Your task to perform on an android device: View the shopping cart on costco.com. Add "duracell triple a" to the cart on costco.com, then select checkout. Image 0: 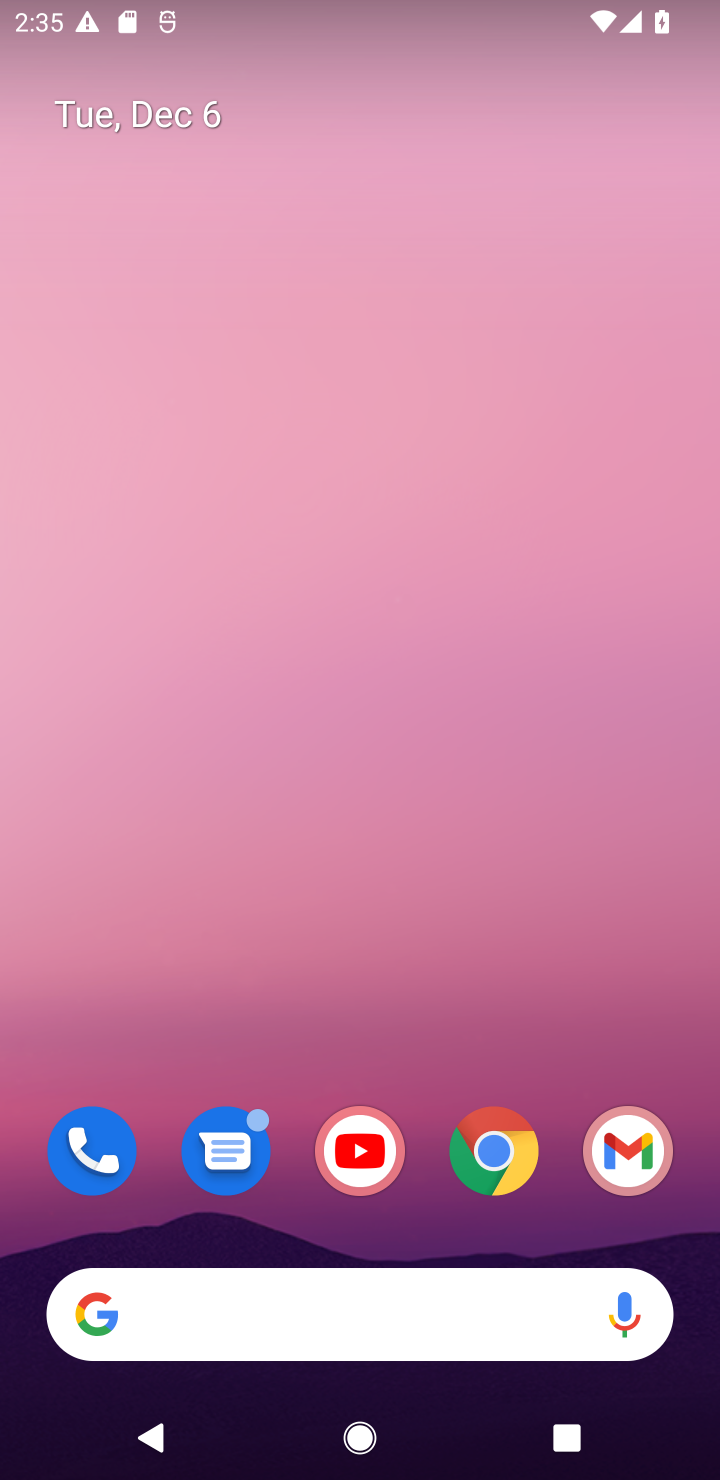
Step 0: click (503, 1161)
Your task to perform on an android device: View the shopping cart on costco.com. Add "duracell triple a" to the cart on costco.com, then select checkout. Image 1: 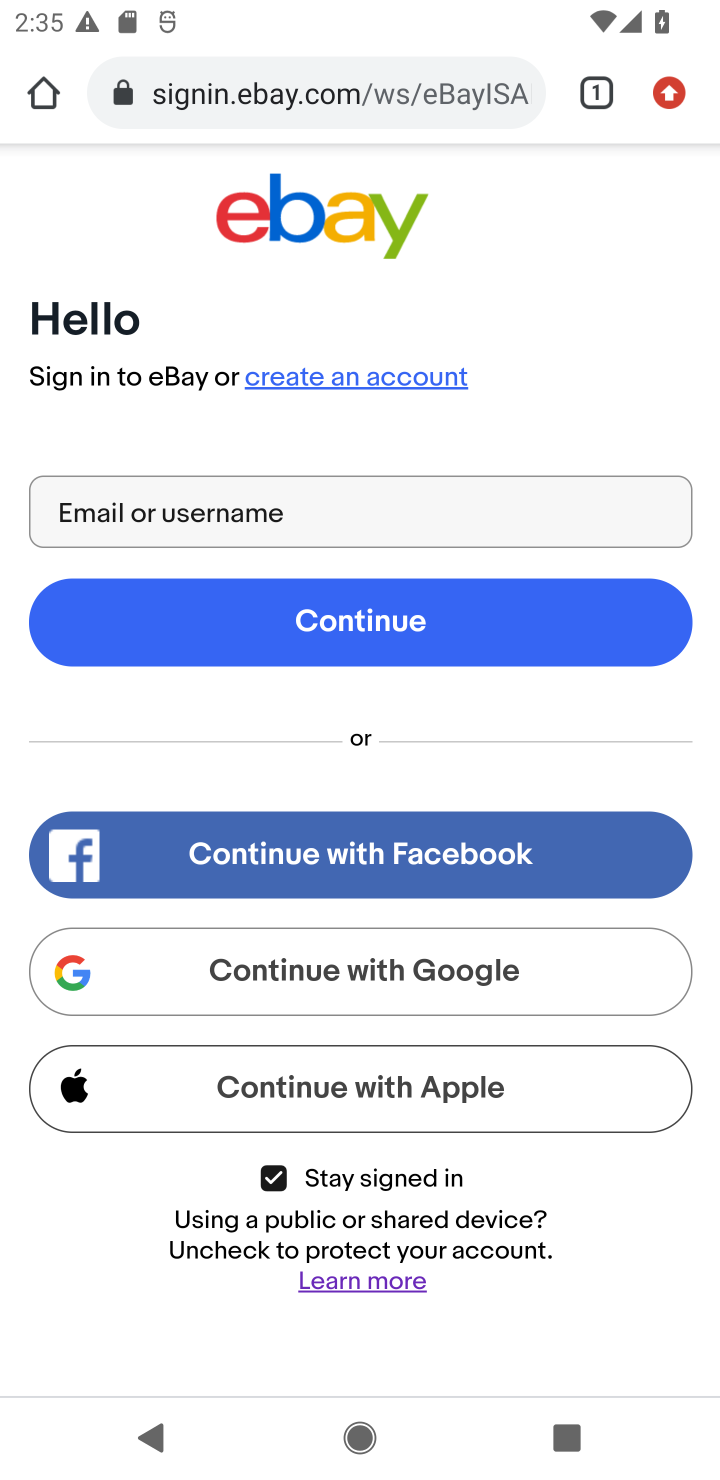
Step 1: click (294, 98)
Your task to perform on an android device: View the shopping cart on costco.com. Add "duracell triple a" to the cart on costco.com, then select checkout. Image 2: 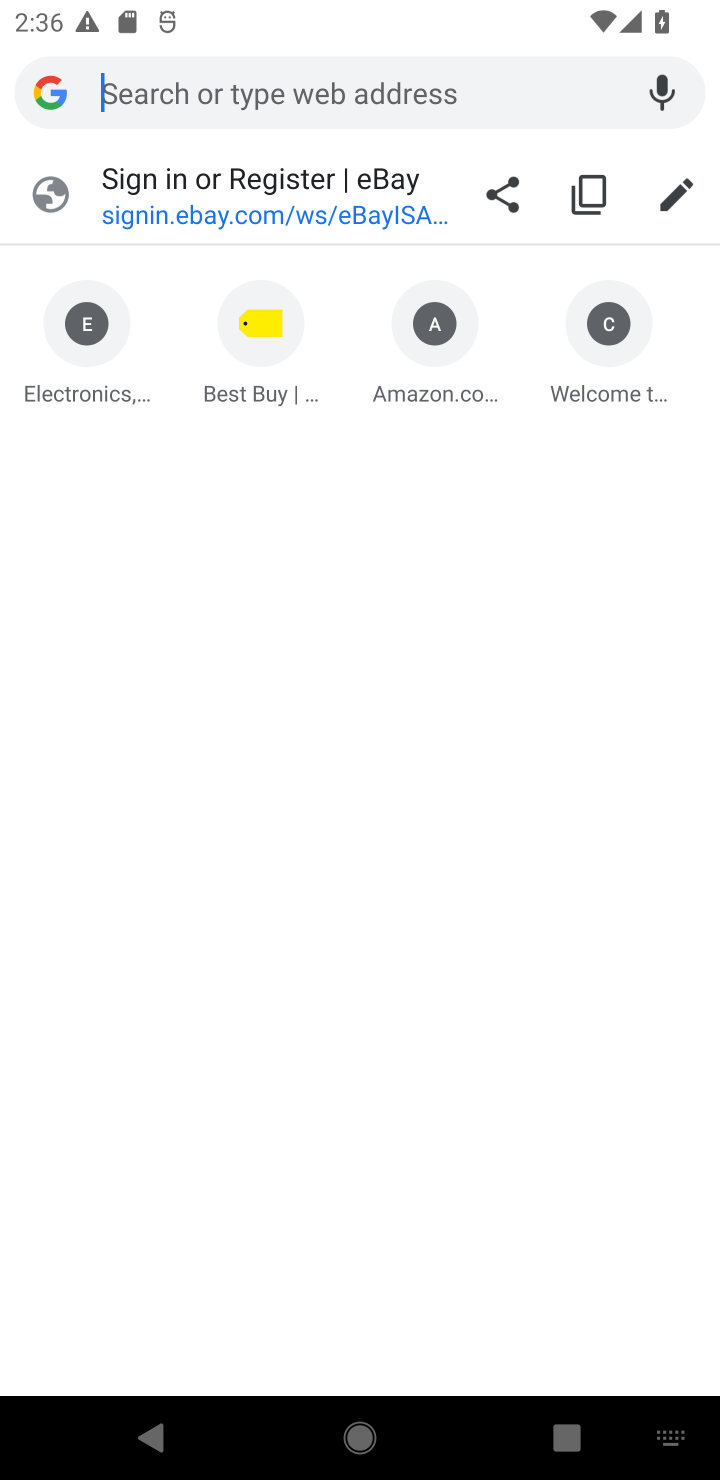
Step 2: type "costco.com"
Your task to perform on an android device: View the shopping cart on costco.com. Add "duracell triple a" to the cart on costco.com, then select checkout. Image 3: 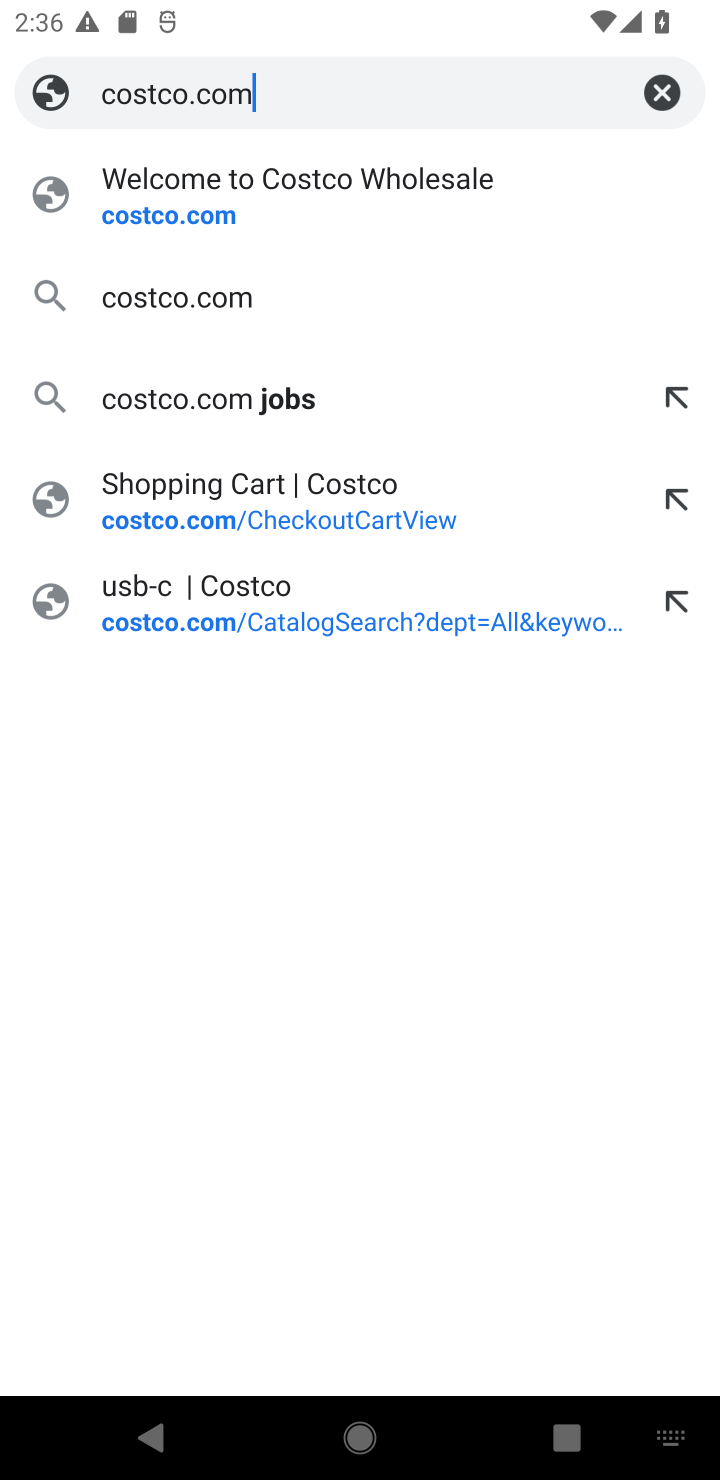
Step 3: click (140, 210)
Your task to perform on an android device: View the shopping cart on costco.com. Add "duracell triple a" to the cart on costco.com, then select checkout. Image 4: 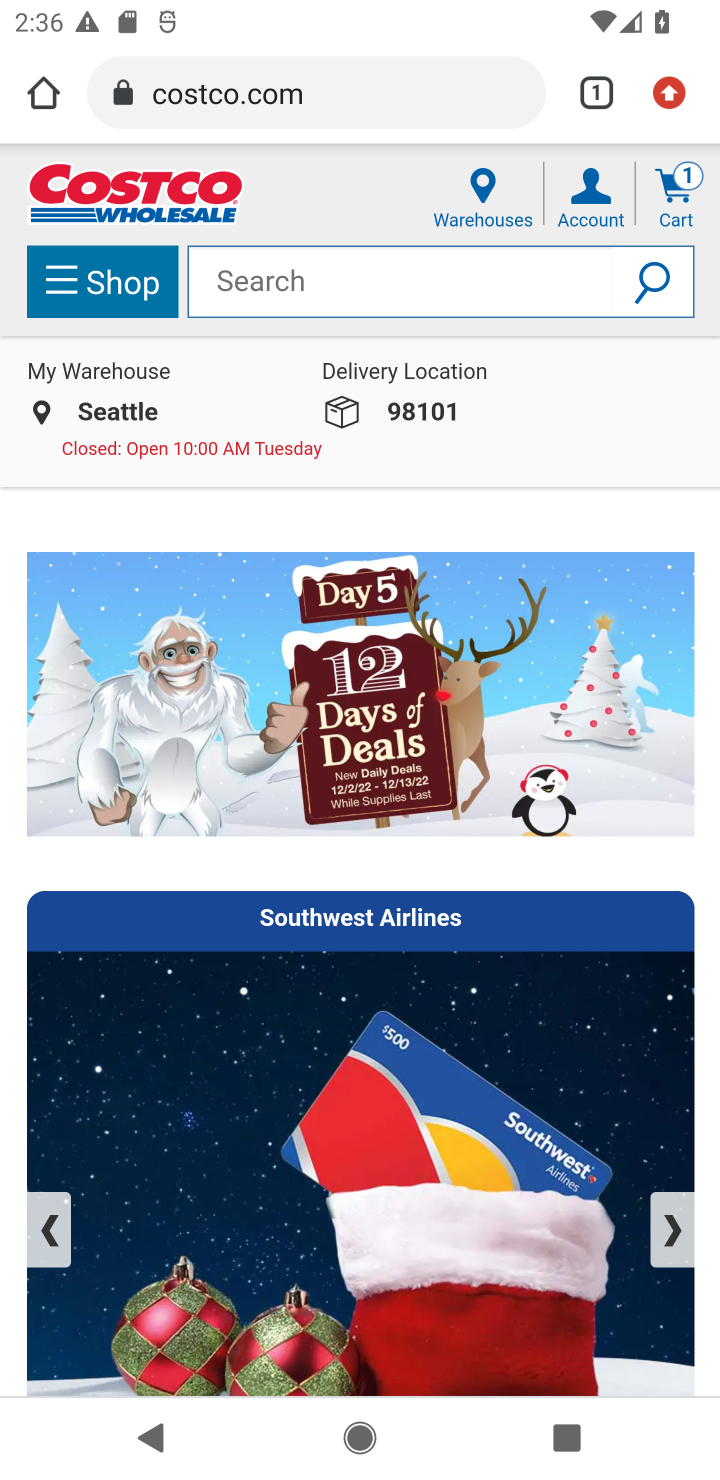
Step 4: click (669, 212)
Your task to perform on an android device: View the shopping cart on costco.com. Add "duracell triple a" to the cart on costco.com, then select checkout. Image 5: 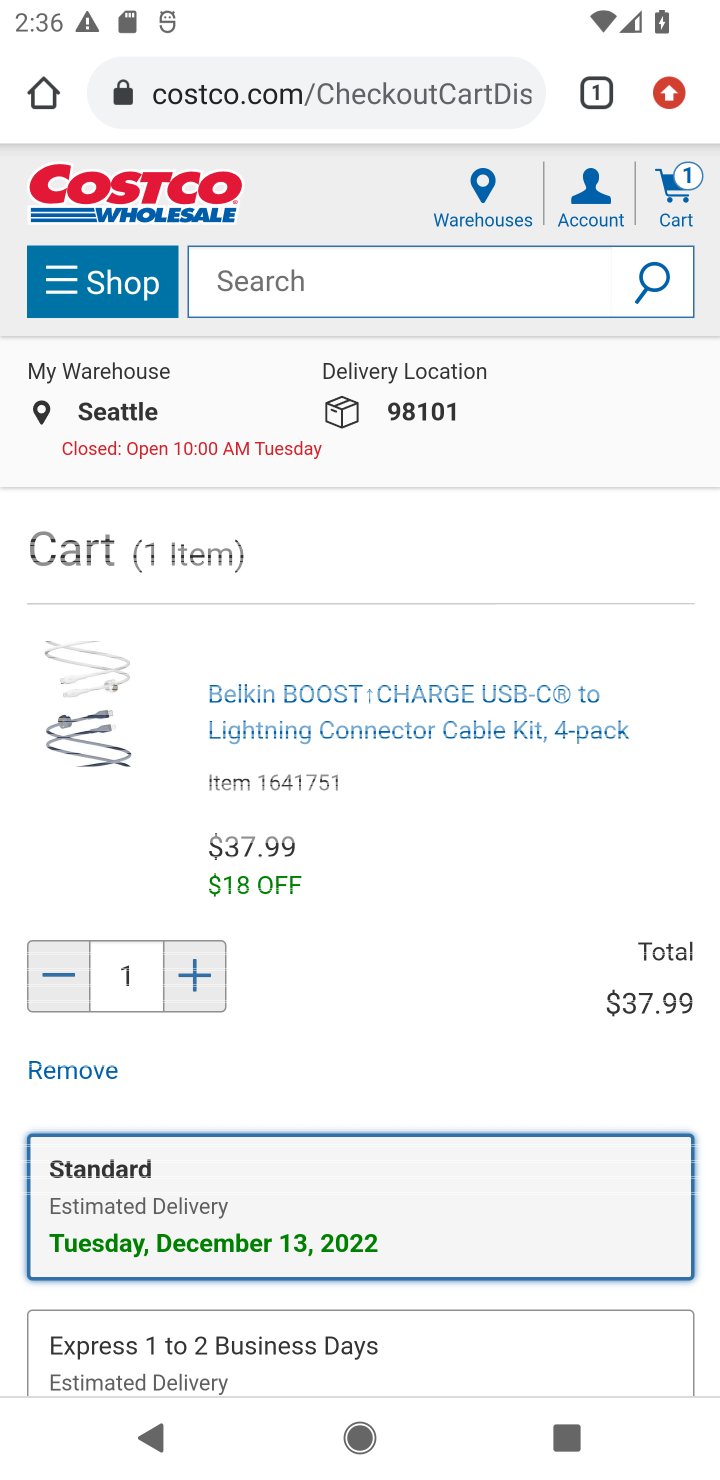
Step 5: drag from (419, 1010) to (413, 496)
Your task to perform on an android device: View the shopping cart on costco.com. Add "duracell triple a" to the cart on costco.com, then select checkout. Image 6: 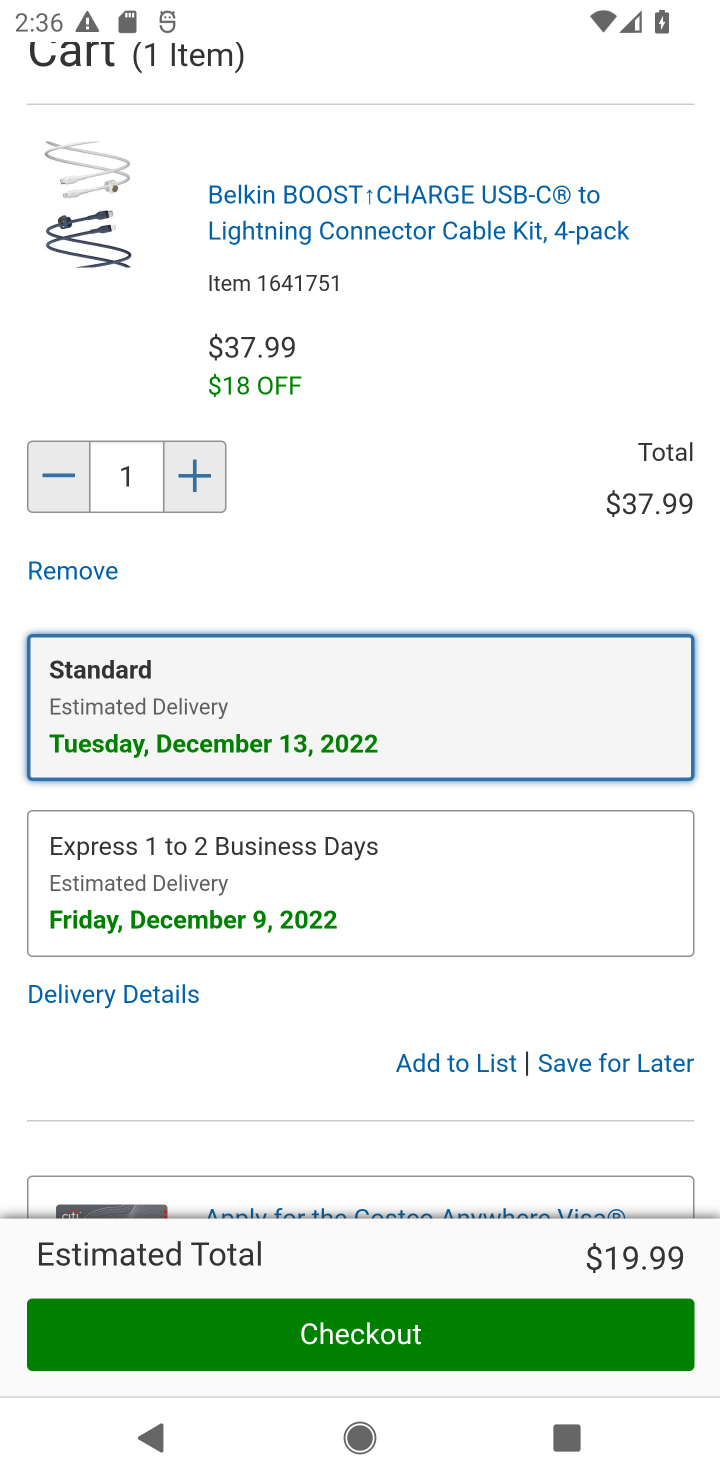
Step 6: drag from (412, 532) to (428, 783)
Your task to perform on an android device: View the shopping cart on costco.com. Add "duracell triple a" to the cart on costco.com, then select checkout. Image 7: 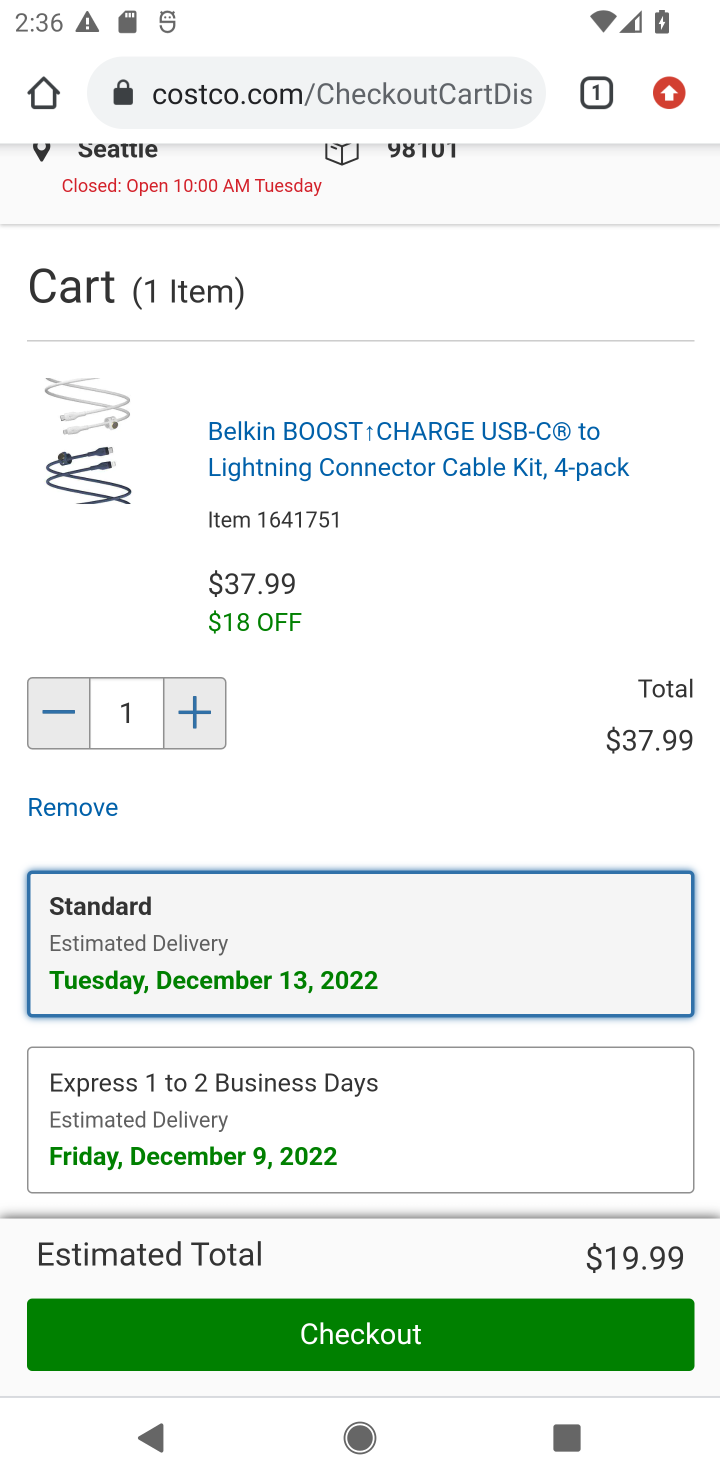
Step 7: drag from (365, 382) to (396, 727)
Your task to perform on an android device: View the shopping cart on costco.com. Add "duracell triple a" to the cart on costco.com, then select checkout. Image 8: 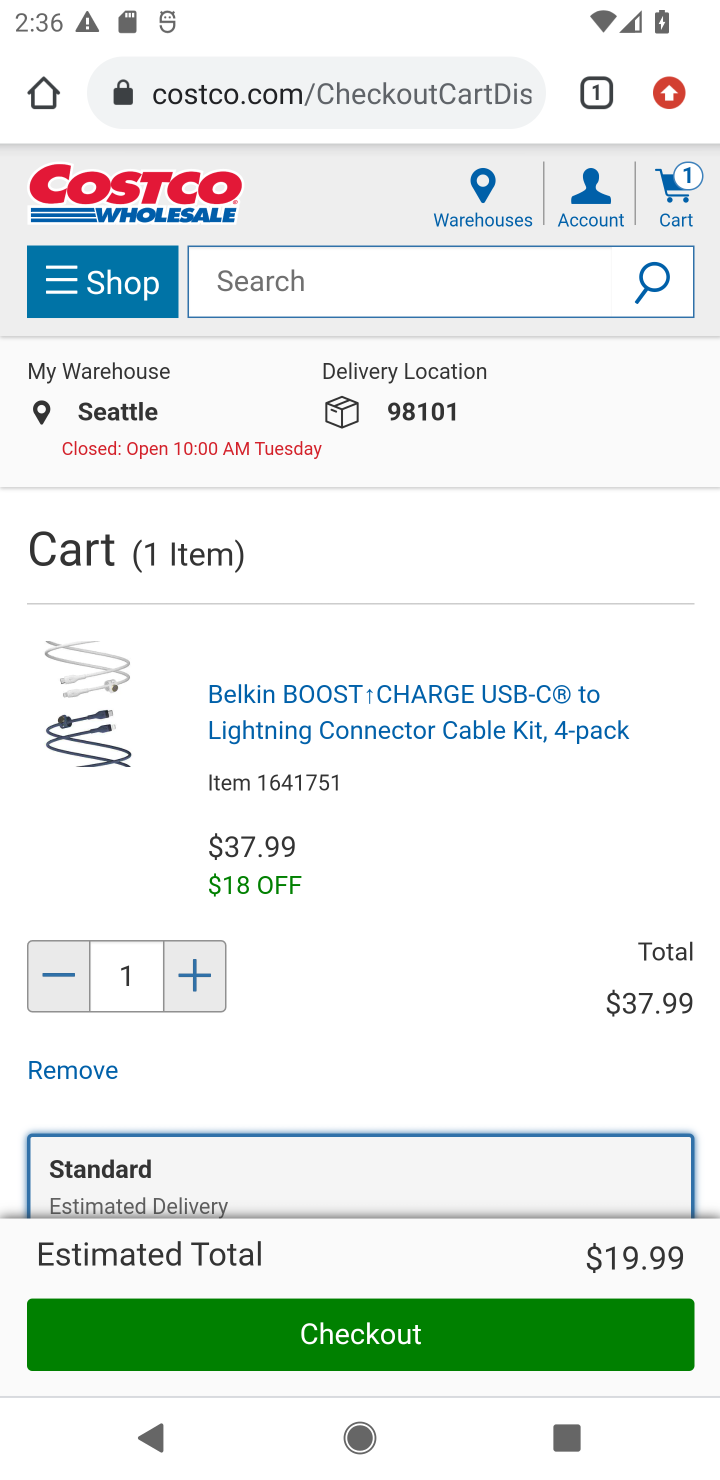
Step 8: click (308, 296)
Your task to perform on an android device: View the shopping cart on costco.com. Add "duracell triple a" to the cart on costco.com, then select checkout. Image 9: 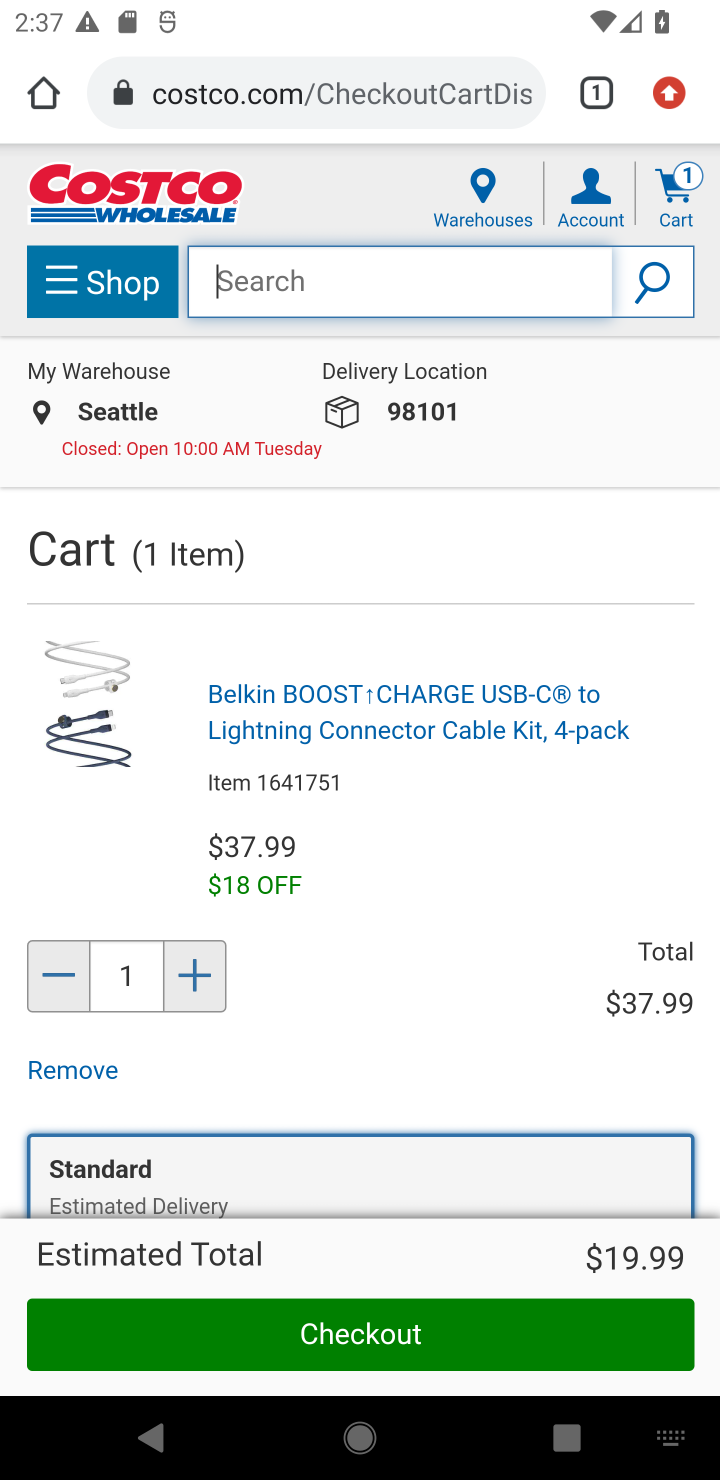
Step 9: type "duracell triple a"
Your task to perform on an android device: View the shopping cart on costco.com. Add "duracell triple a" to the cart on costco.com, then select checkout. Image 10: 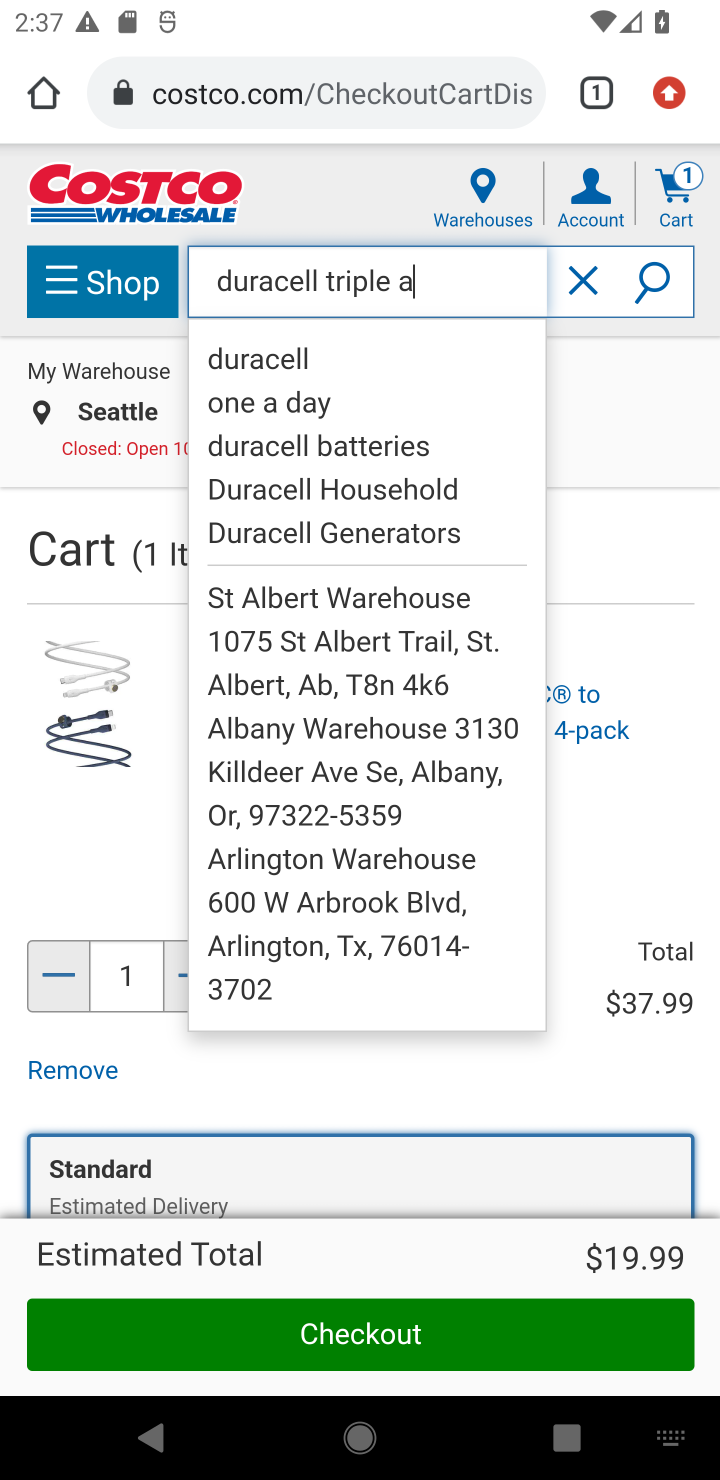
Step 10: click (662, 292)
Your task to perform on an android device: View the shopping cart on costco.com. Add "duracell triple a" to the cart on costco.com, then select checkout. Image 11: 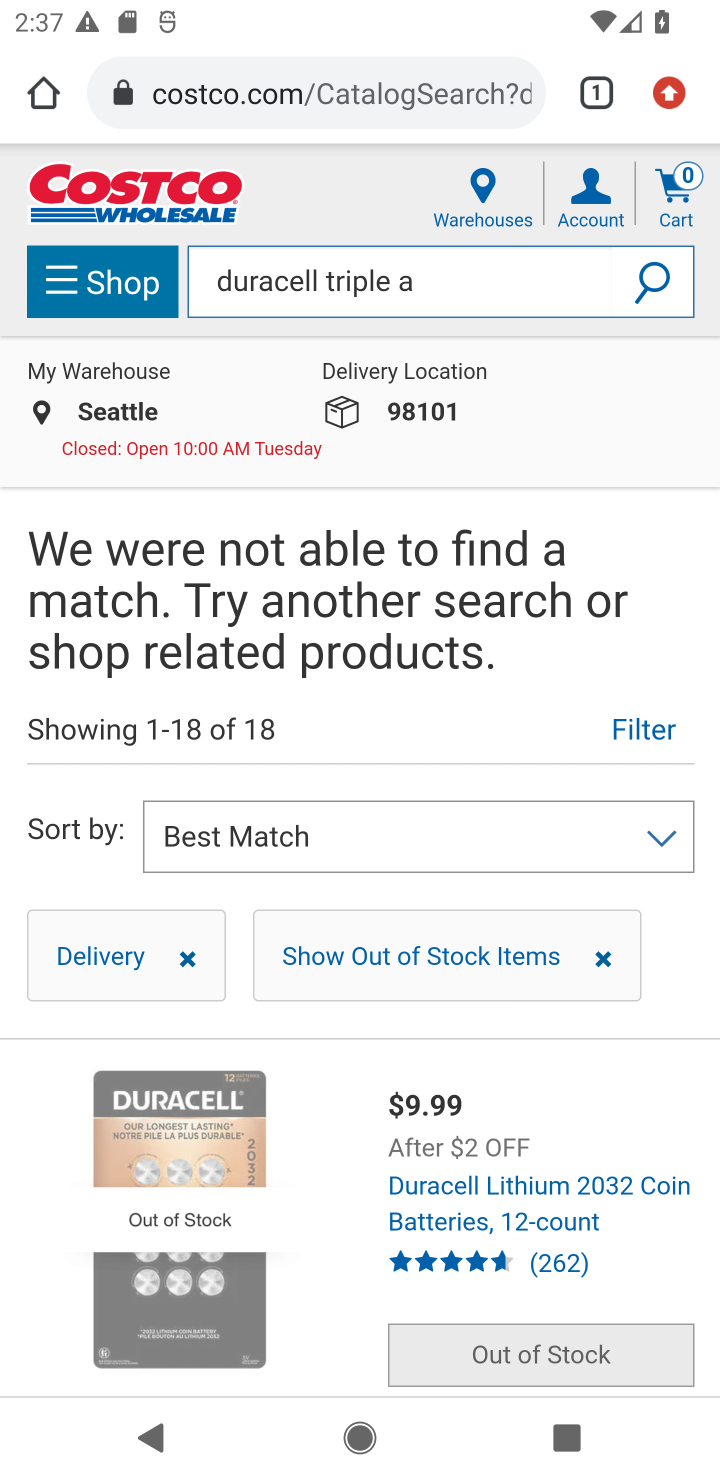
Step 11: task complete